Your task to perform on an android device: uninstall "LiveIn - Share Your Moment" Image 0: 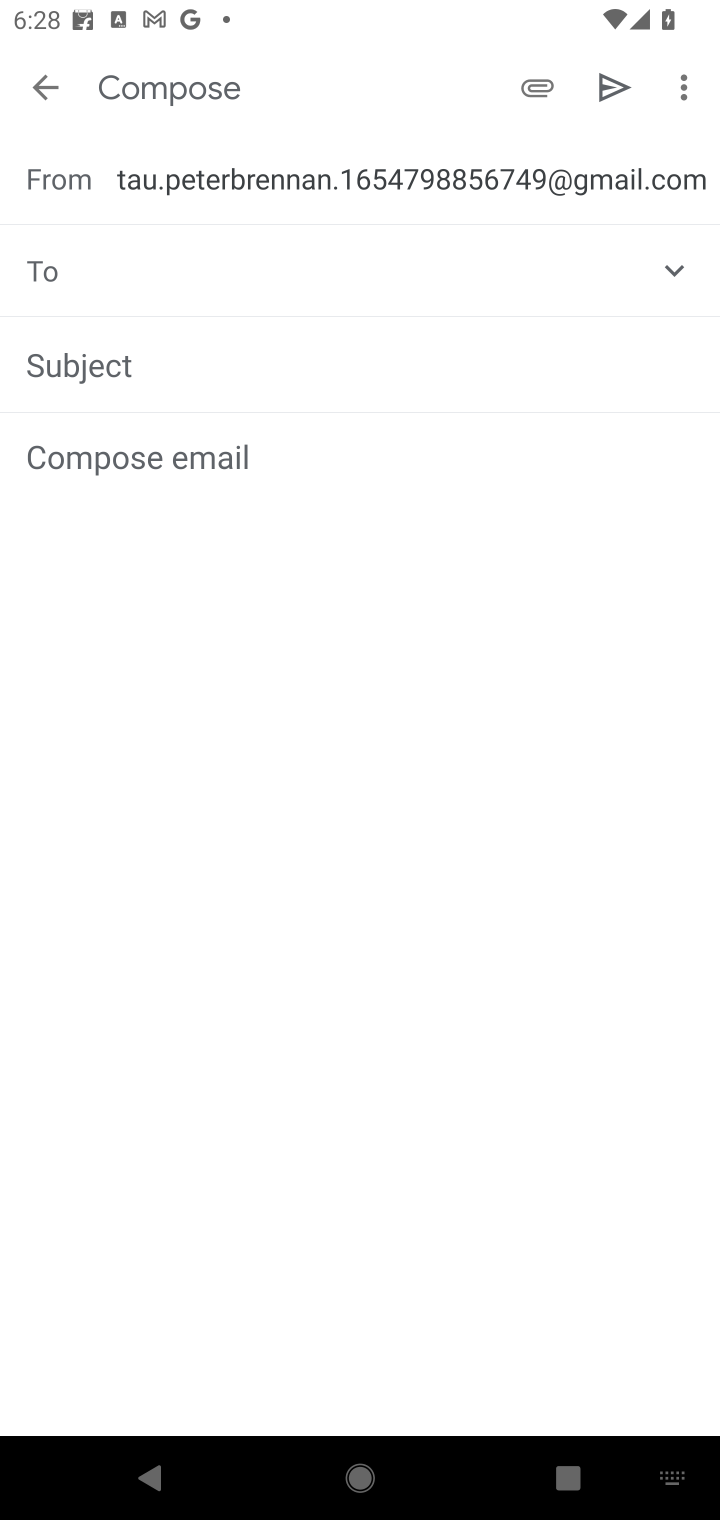
Step 0: press home button
Your task to perform on an android device: uninstall "LiveIn - Share Your Moment" Image 1: 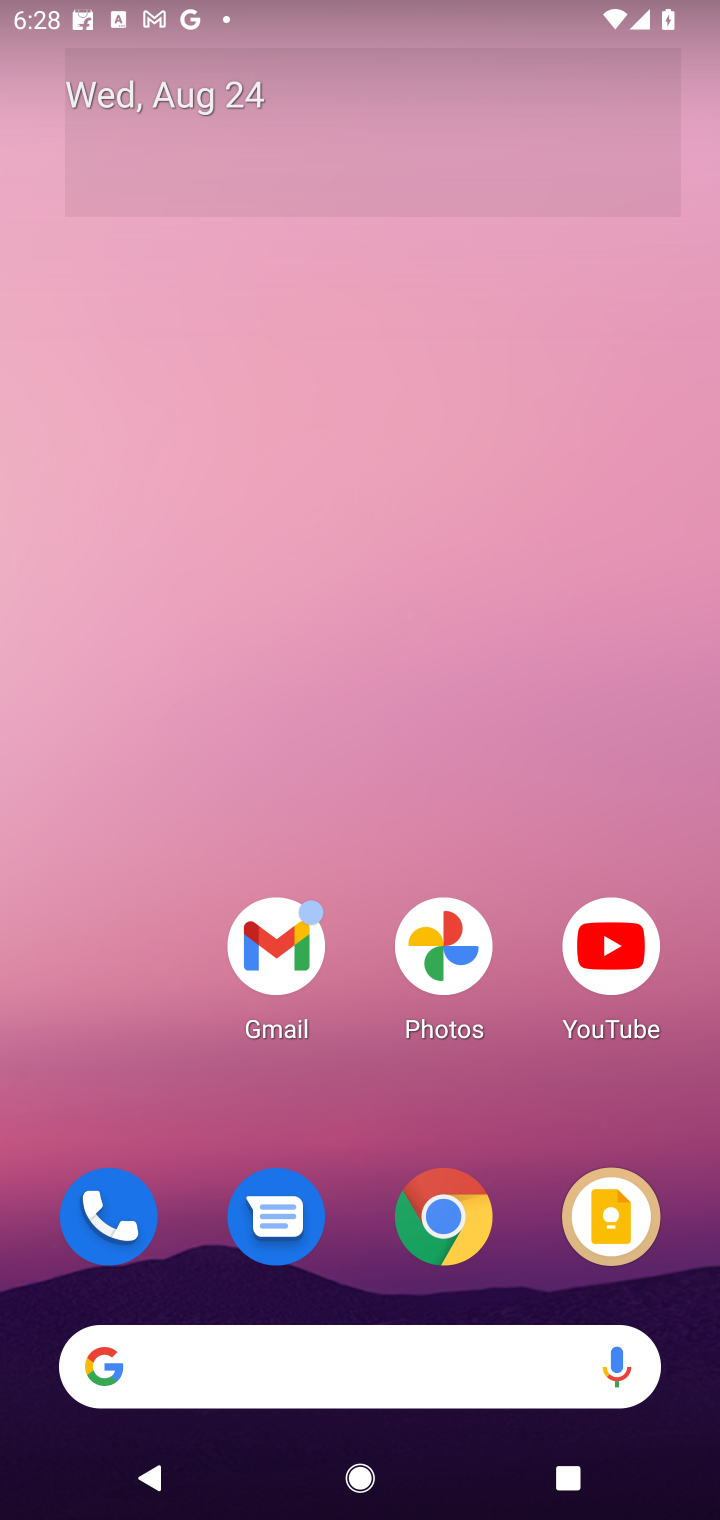
Step 1: drag from (383, 1066) to (453, 354)
Your task to perform on an android device: uninstall "LiveIn - Share Your Moment" Image 2: 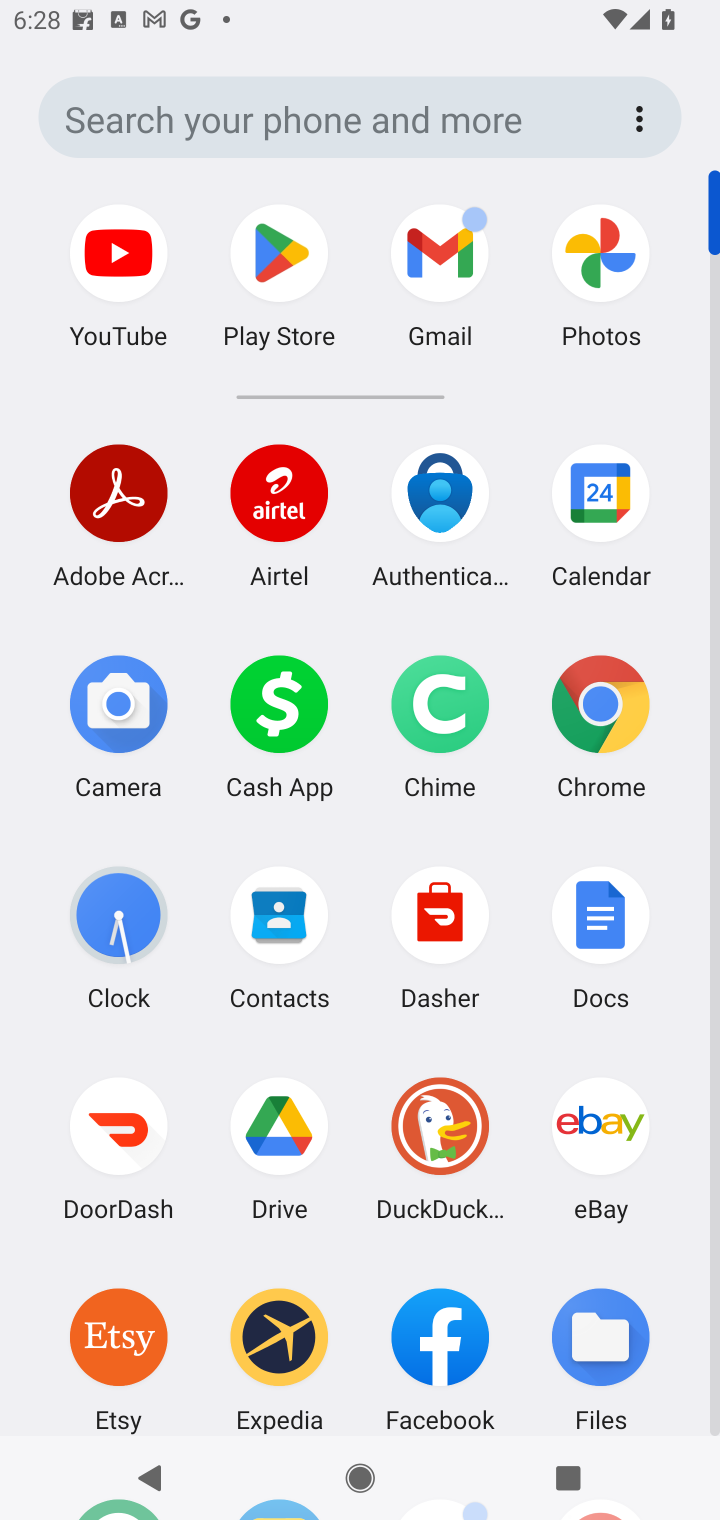
Step 2: click (281, 254)
Your task to perform on an android device: uninstall "LiveIn - Share Your Moment" Image 3: 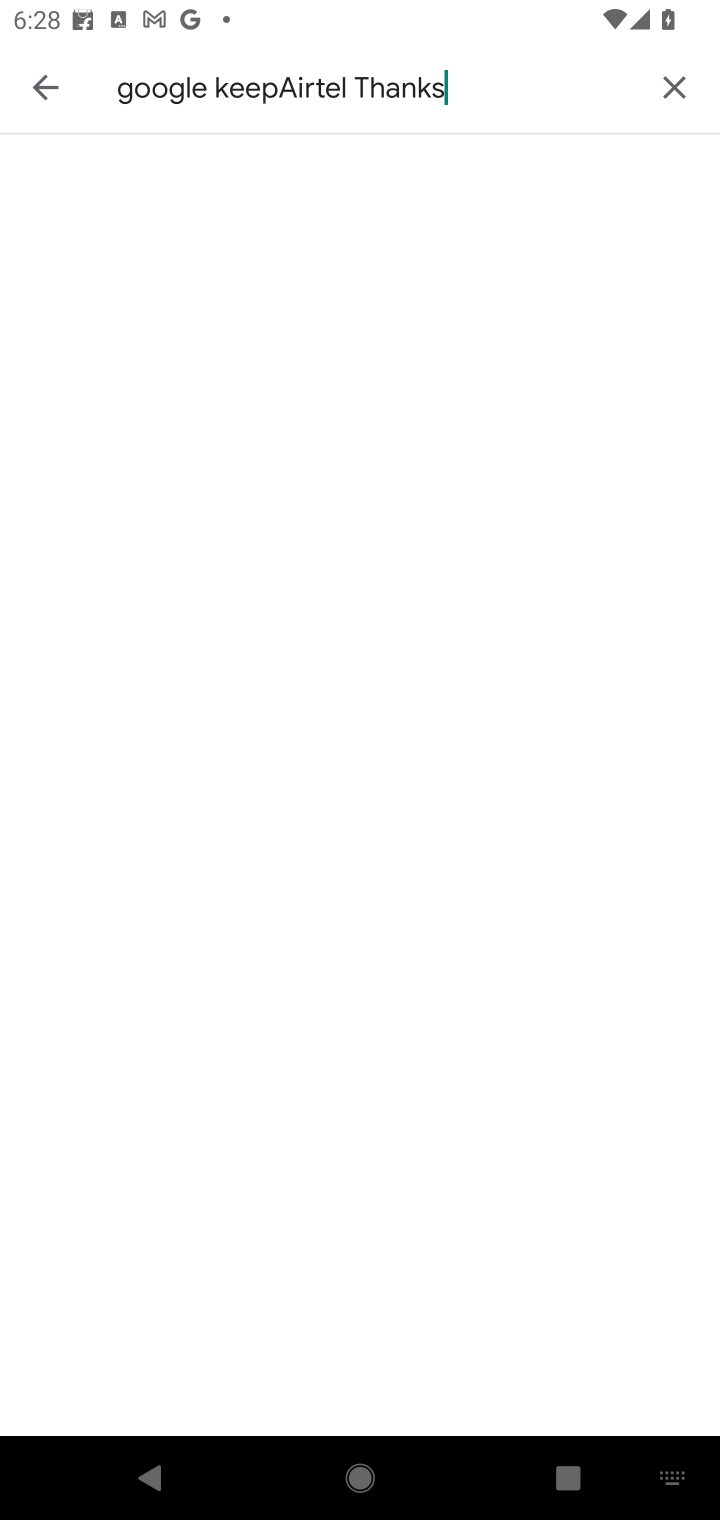
Step 3: click (690, 80)
Your task to perform on an android device: uninstall "LiveIn - Share Your Moment" Image 4: 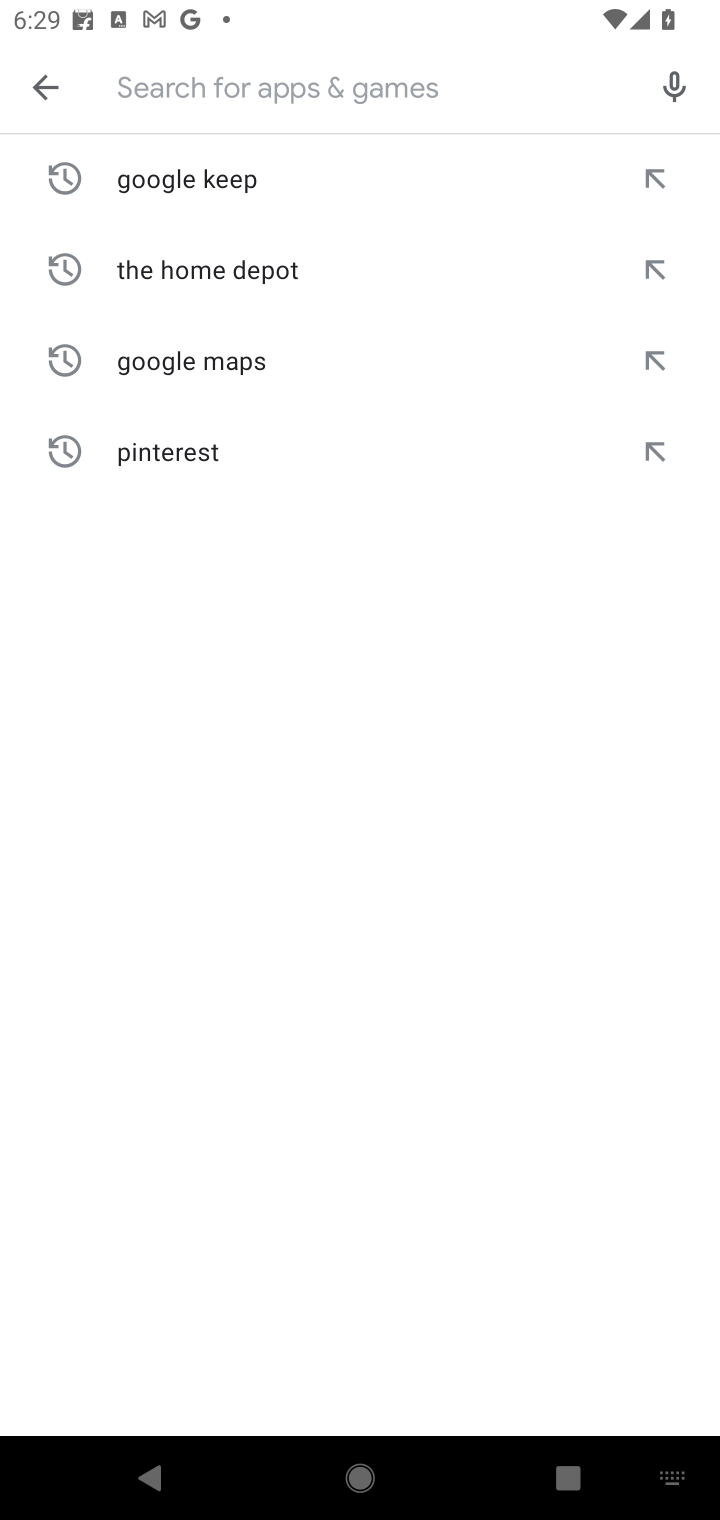
Step 4: type "LiveIn - Share Your Momen"
Your task to perform on an android device: uninstall "LiveIn - Share Your Moment" Image 5: 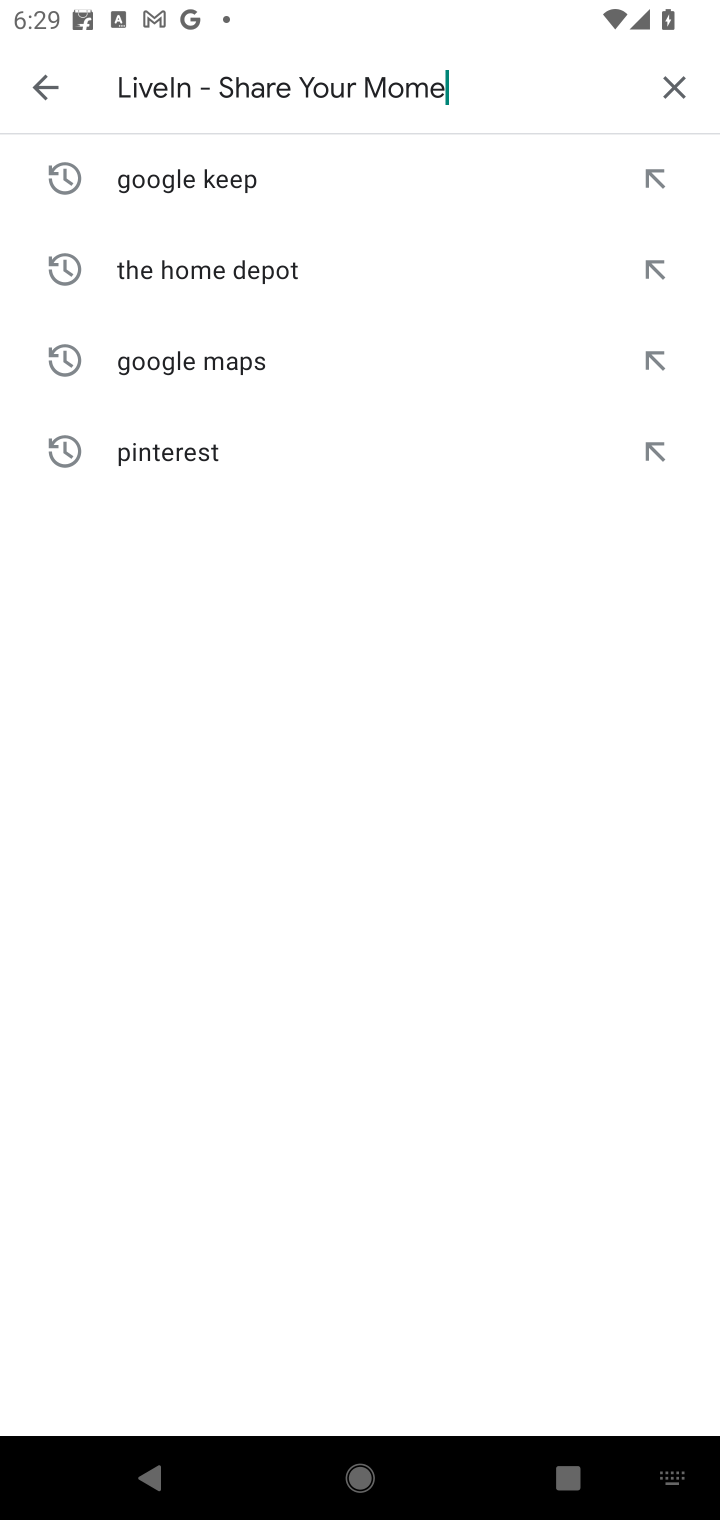
Step 5: type ""
Your task to perform on an android device: uninstall "LiveIn - Share Your Moment" Image 6: 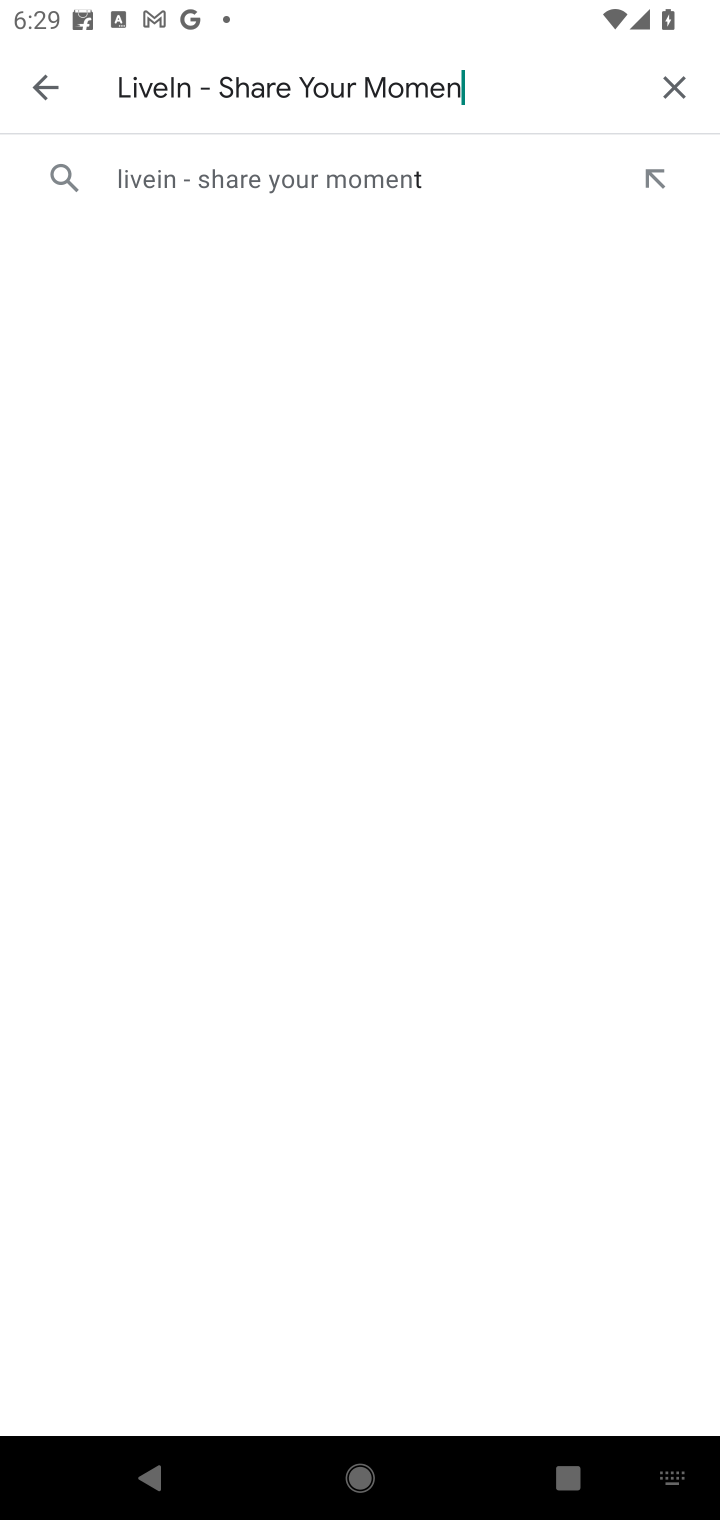
Step 6: click (283, 205)
Your task to perform on an android device: uninstall "LiveIn - Share Your Moment" Image 7: 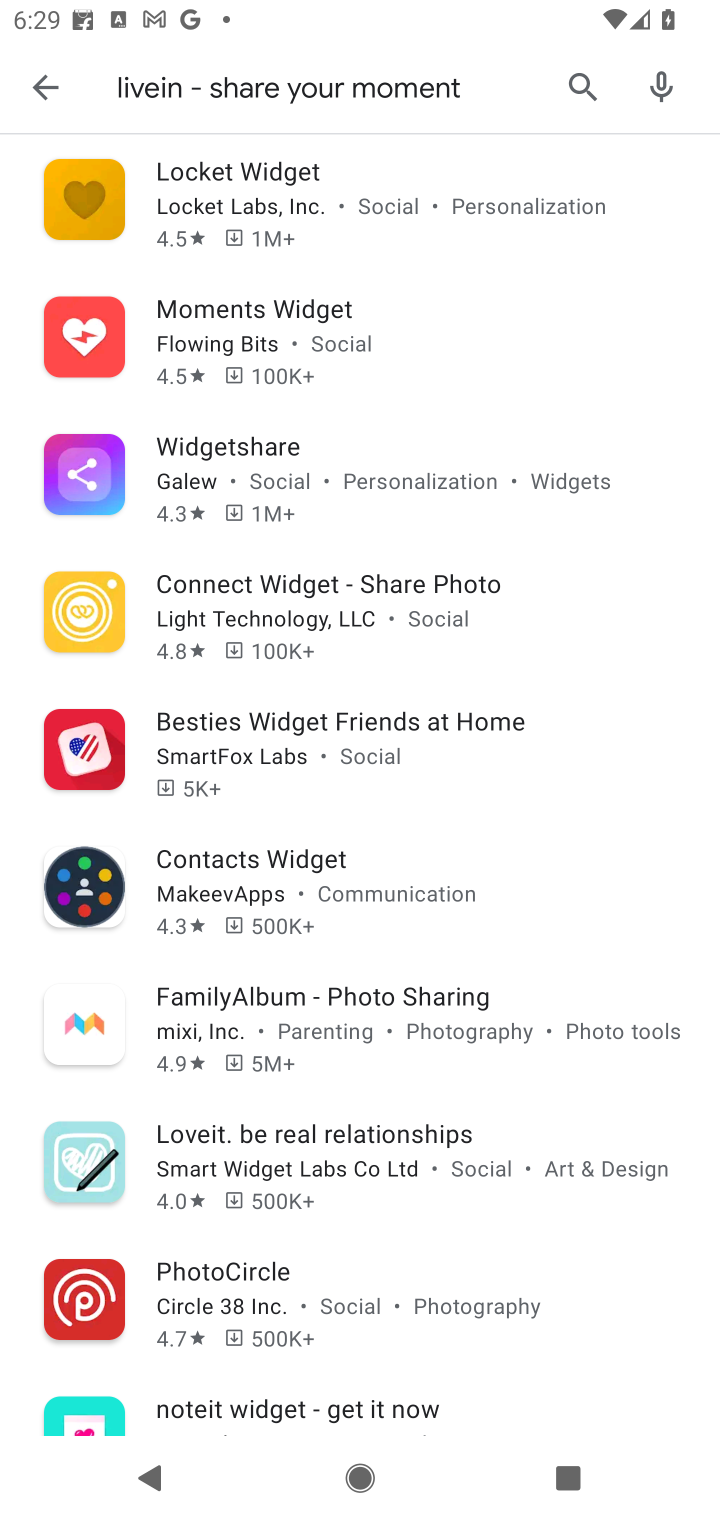
Step 7: task complete